Your task to perform on an android device: install app "Roku - Official Remote Control" Image 0: 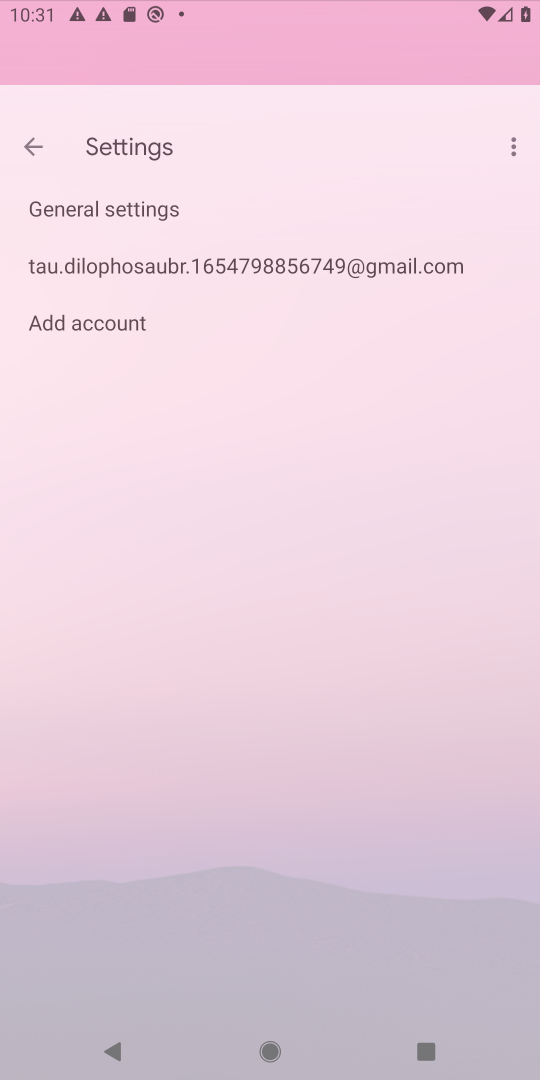
Step 0: press home button
Your task to perform on an android device: install app "Roku - Official Remote Control" Image 1: 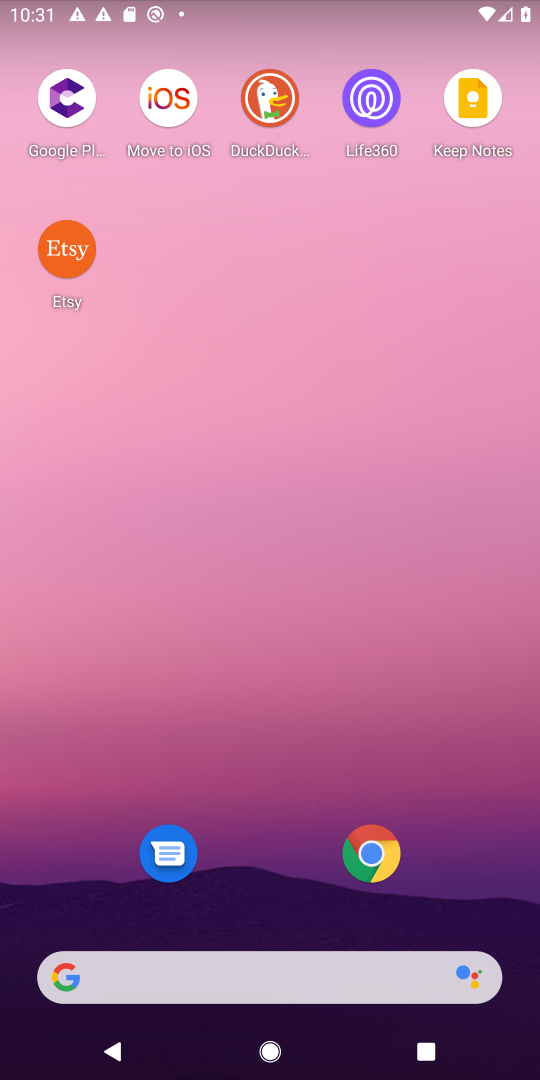
Step 1: drag from (305, 1067) to (327, 206)
Your task to perform on an android device: install app "Roku - Official Remote Control" Image 2: 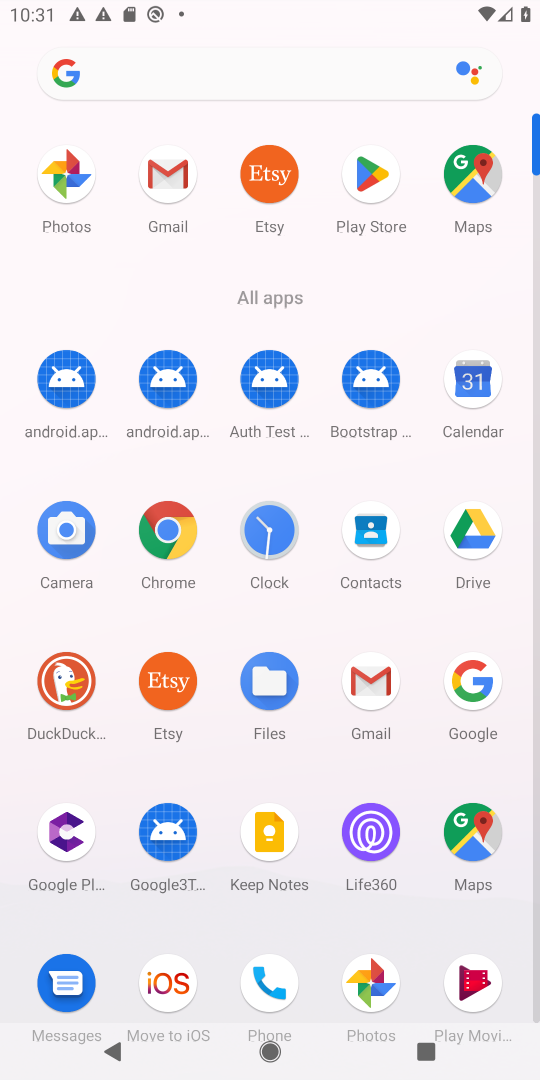
Step 2: click (465, 172)
Your task to perform on an android device: install app "Roku - Official Remote Control" Image 3: 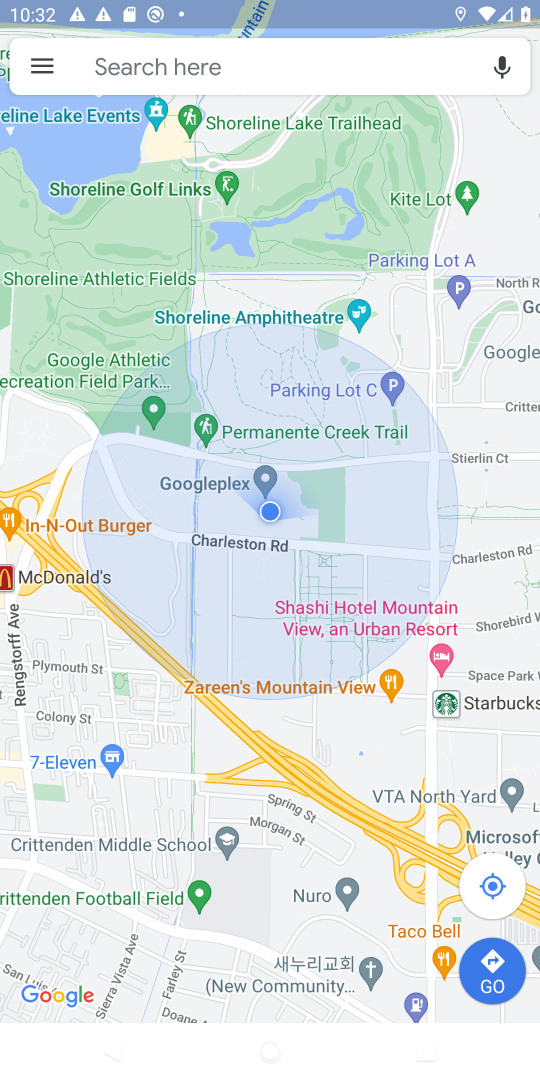
Step 3: press home button
Your task to perform on an android device: install app "Roku - Official Remote Control" Image 4: 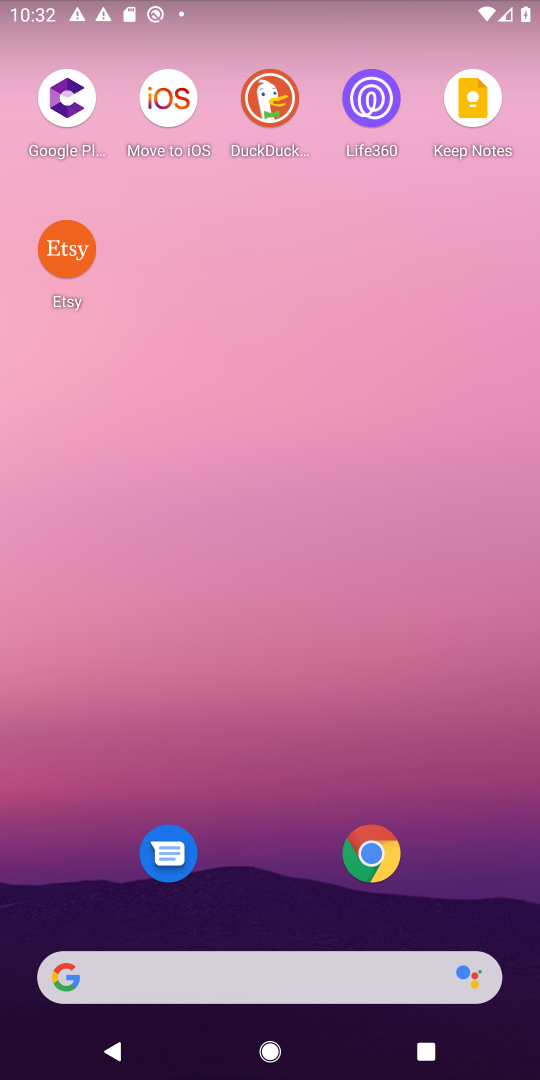
Step 4: drag from (320, 1052) to (298, 116)
Your task to perform on an android device: install app "Roku - Official Remote Control" Image 5: 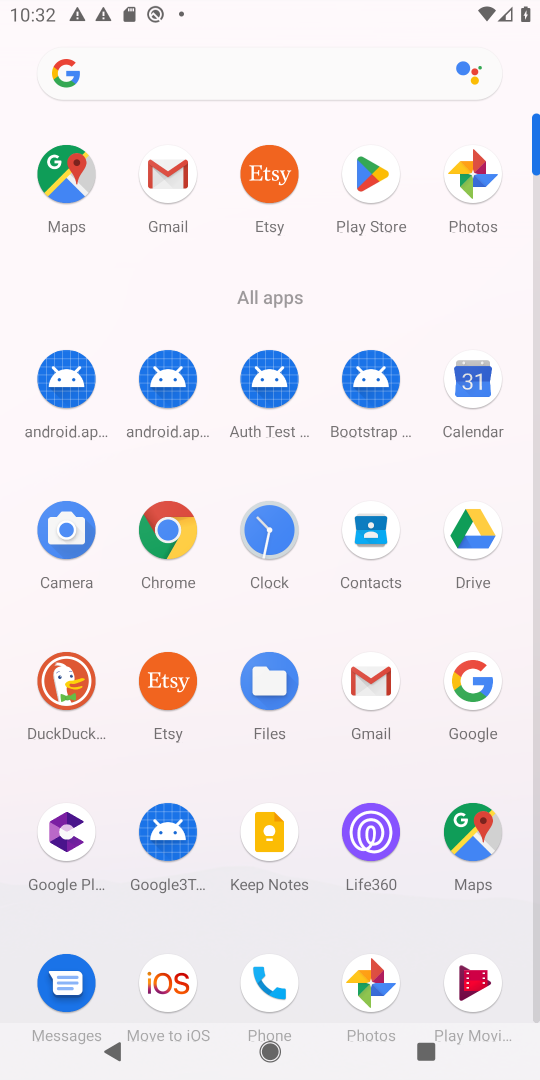
Step 5: click (377, 185)
Your task to perform on an android device: install app "Roku - Official Remote Control" Image 6: 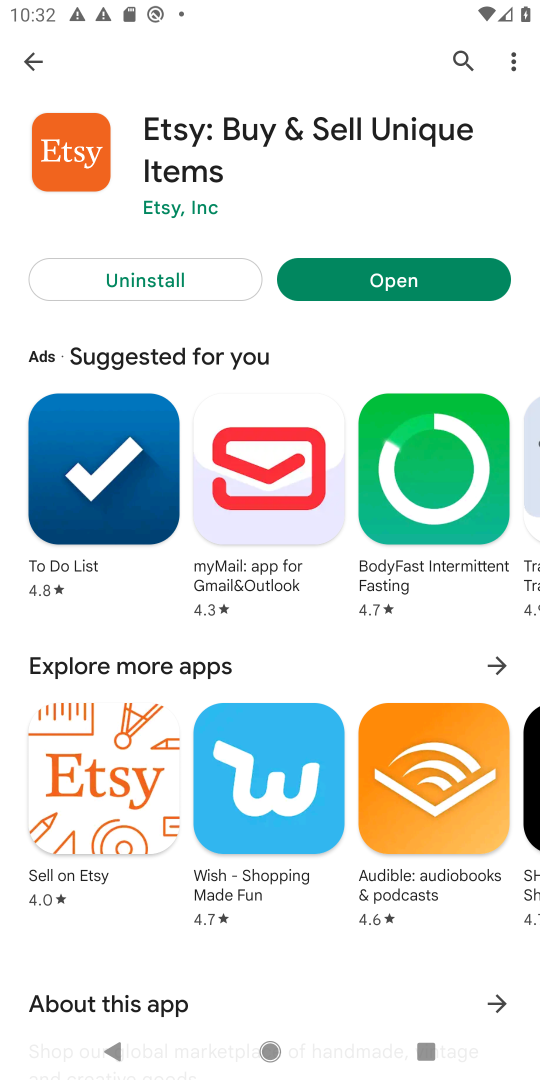
Step 6: click (460, 51)
Your task to perform on an android device: install app "Roku - Official Remote Control" Image 7: 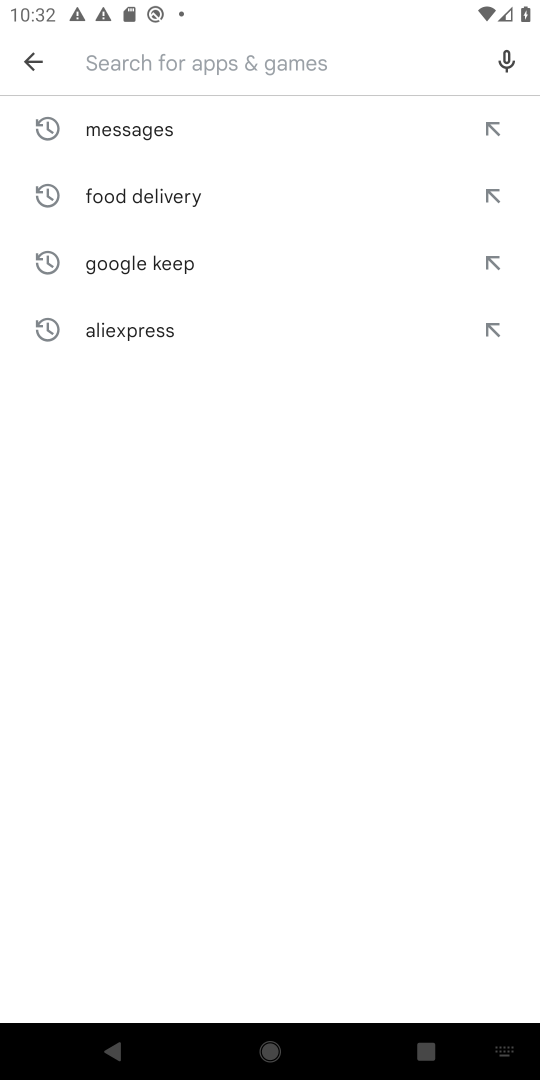
Step 7: type "Roku - Official Remote Control"
Your task to perform on an android device: install app "Roku - Official Remote Control" Image 8: 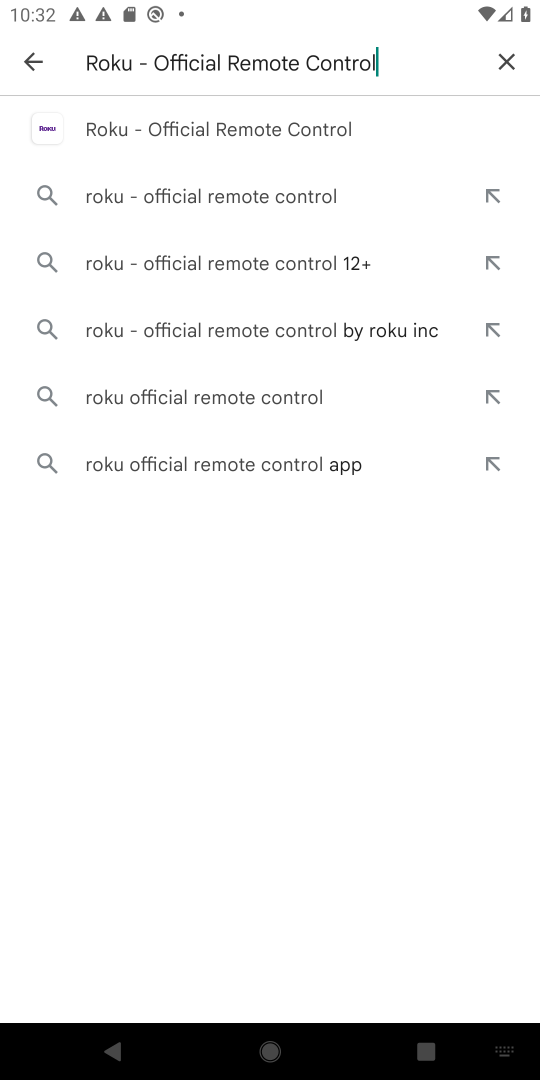
Step 8: click (321, 136)
Your task to perform on an android device: install app "Roku - Official Remote Control" Image 9: 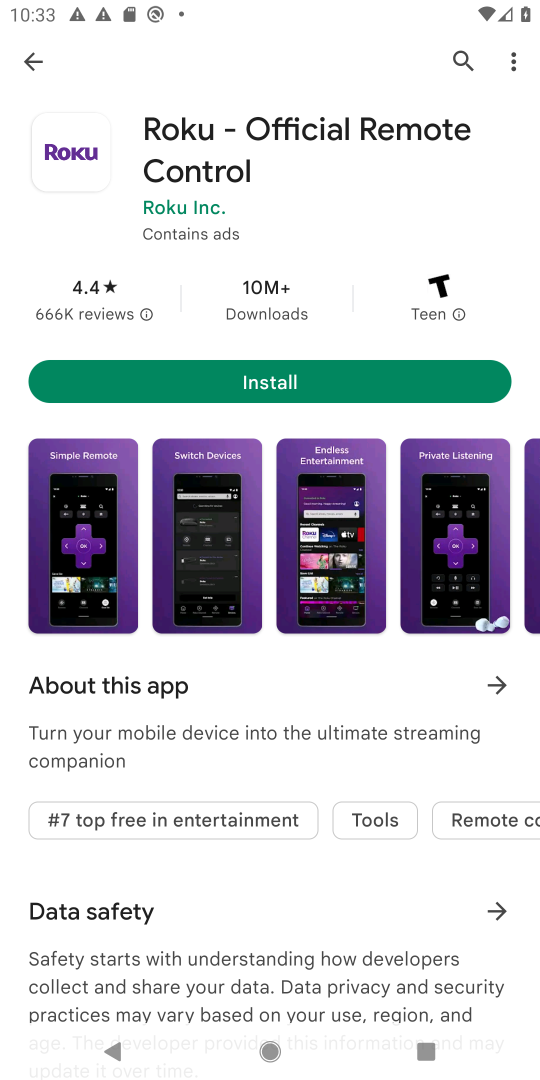
Step 9: click (257, 389)
Your task to perform on an android device: install app "Roku - Official Remote Control" Image 10: 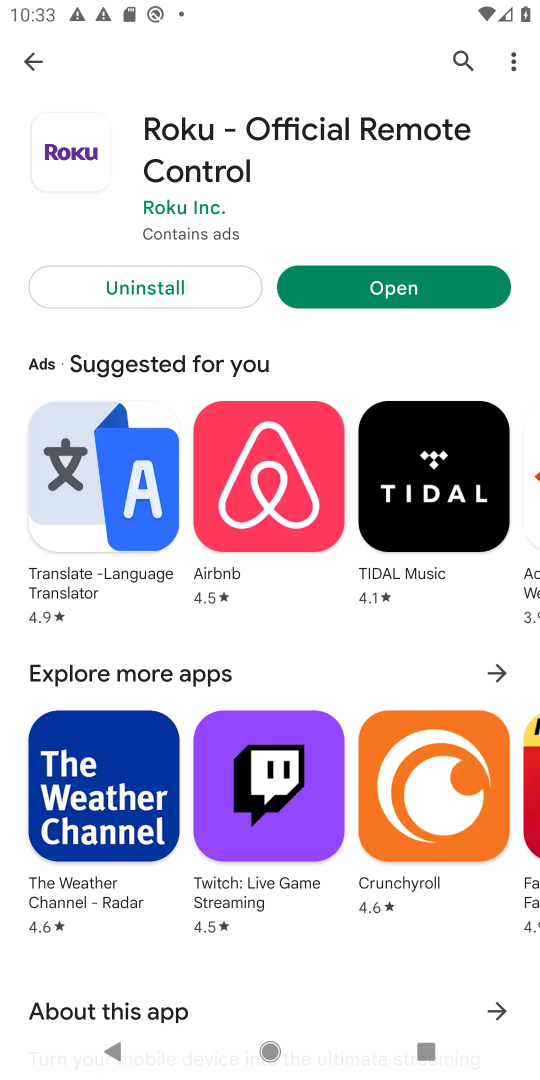
Step 10: task complete